Your task to perform on an android device: check android version Image 0: 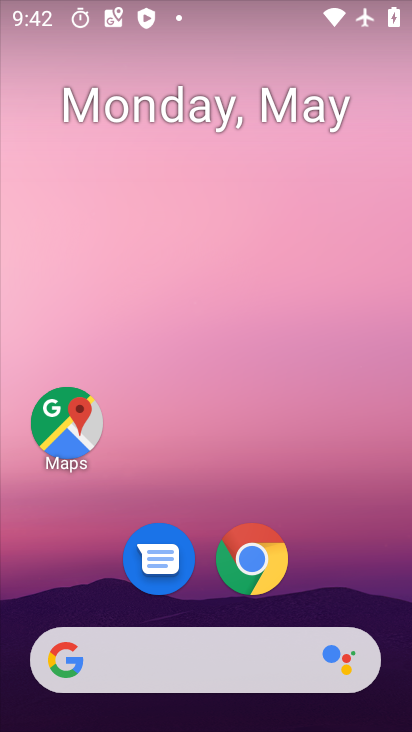
Step 0: drag from (323, 603) to (352, 5)
Your task to perform on an android device: check android version Image 1: 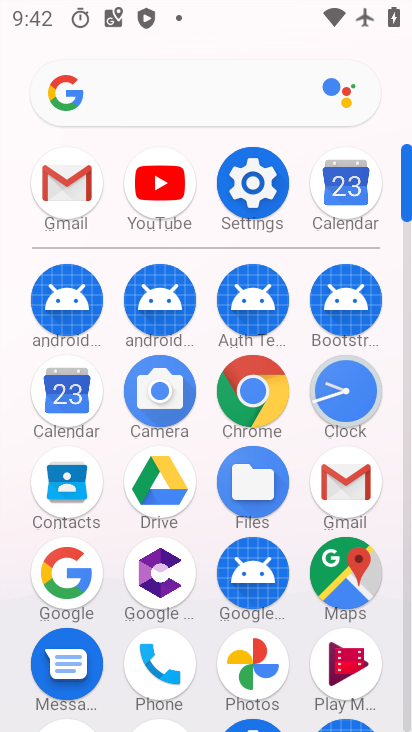
Step 1: click (252, 186)
Your task to perform on an android device: check android version Image 2: 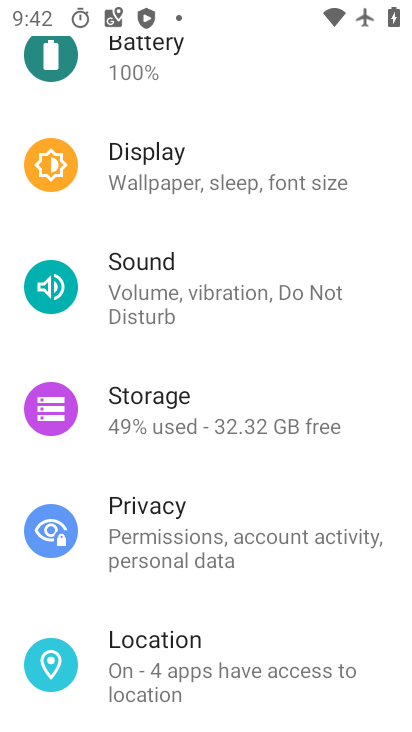
Step 2: drag from (173, 617) to (196, 255)
Your task to perform on an android device: check android version Image 3: 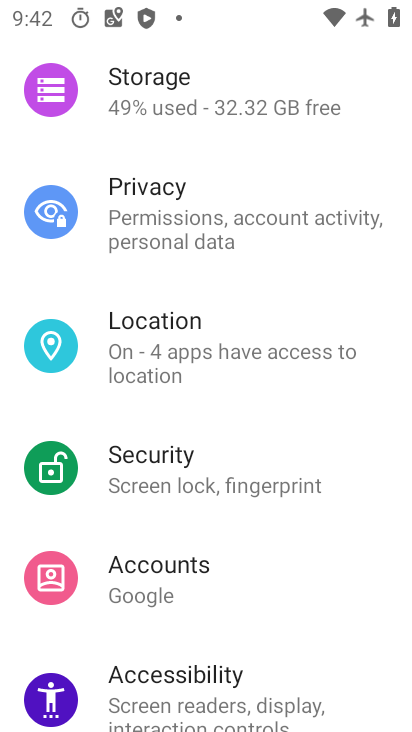
Step 3: drag from (189, 546) to (202, 235)
Your task to perform on an android device: check android version Image 4: 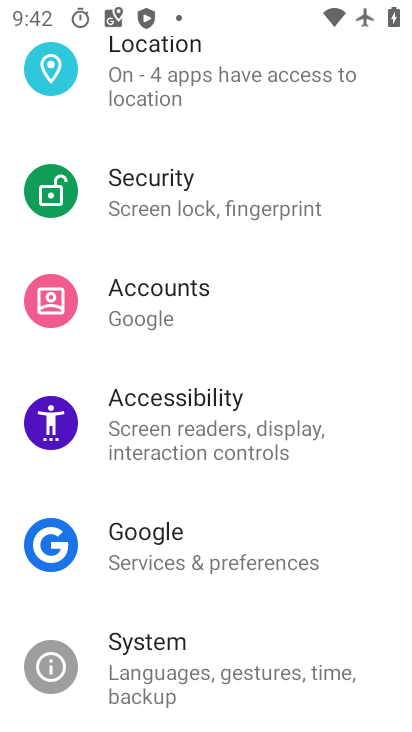
Step 4: drag from (145, 549) to (206, 171)
Your task to perform on an android device: check android version Image 5: 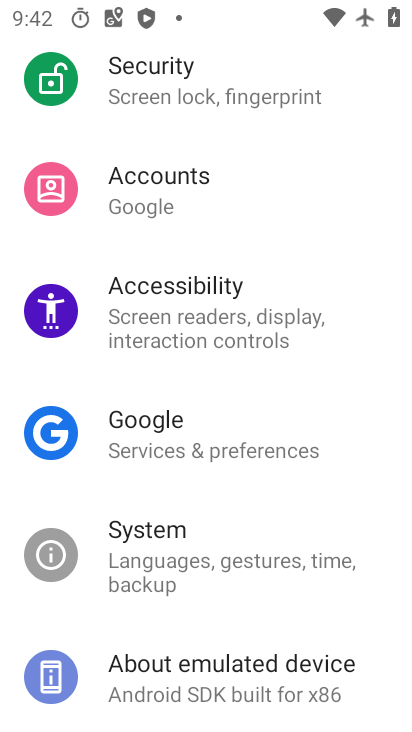
Step 5: drag from (249, 367) to (248, 135)
Your task to perform on an android device: check android version Image 6: 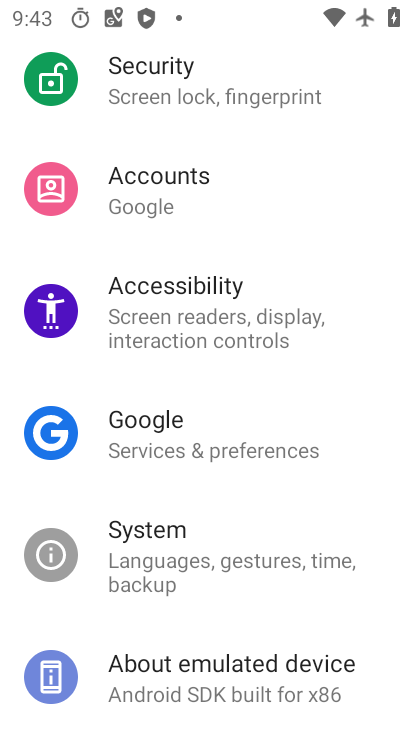
Step 6: click (176, 672)
Your task to perform on an android device: check android version Image 7: 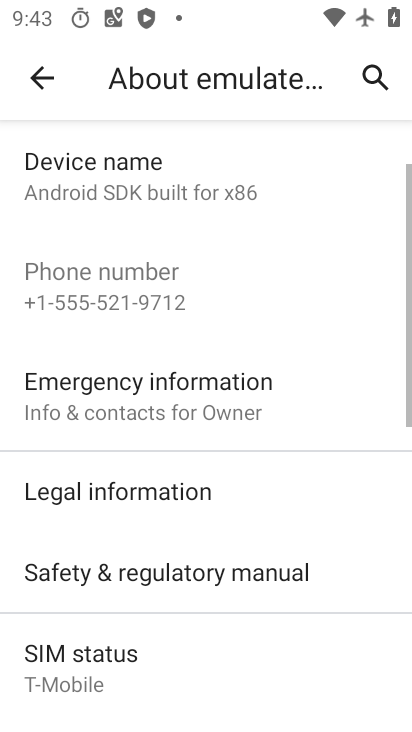
Step 7: drag from (163, 654) to (161, 254)
Your task to perform on an android device: check android version Image 8: 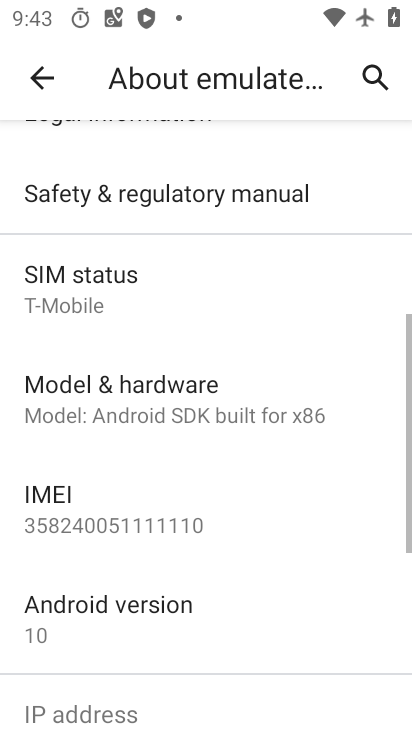
Step 8: click (88, 642)
Your task to perform on an android device: check android version Image 9: 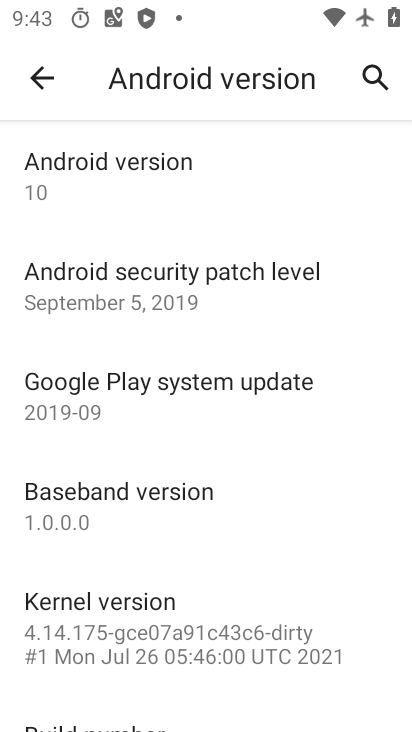
Step 9: click (236, 156)
Your task to perform on an android device: check android version Image 10: 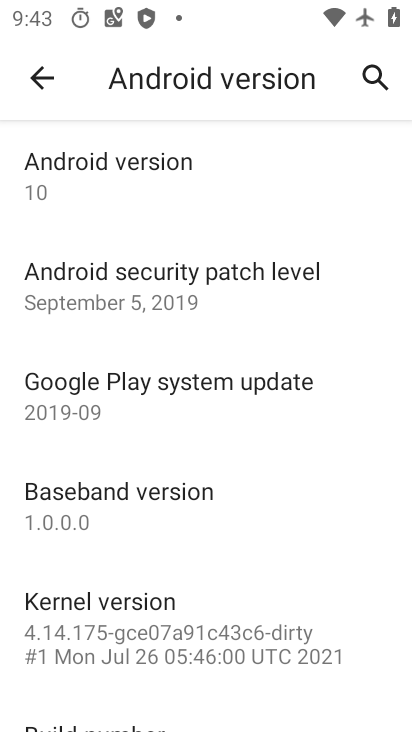
Step 10: task complete